Your task to perform on an android device: turn off notifications in google photos Image 0: 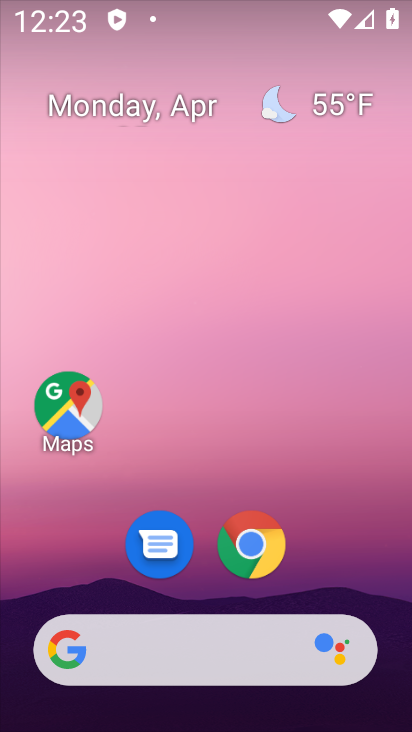
Step 0: drag from (284, 438) to (122, 54)
Your task to perform on an android device: turn off notifications in google photos Image 1: 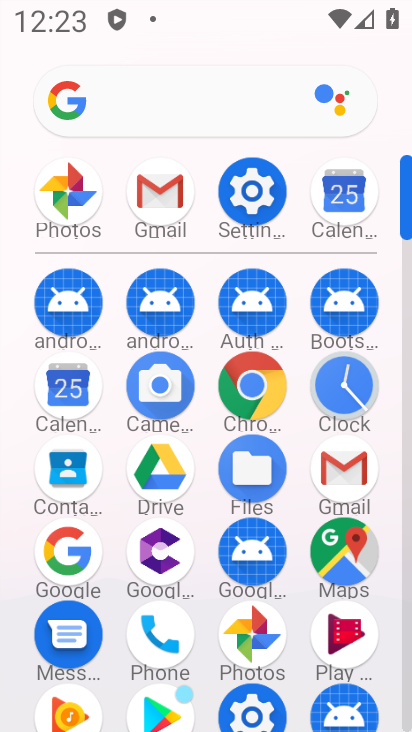
Step 1: click (249, 634)
Your task to perform on an android device: turn off notifications in google photos Image 2: 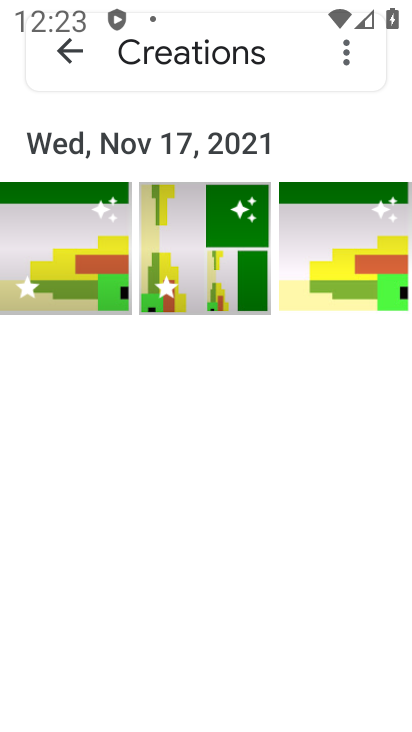
Step 2: press back button
Your task to perform on an android device: turn off notifications in google photos Image 3: 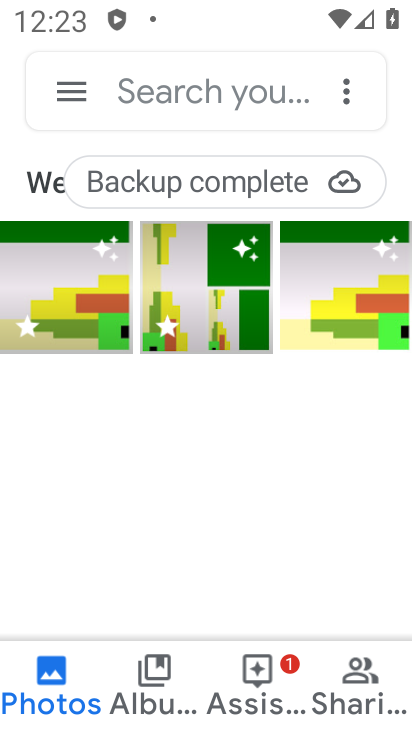
Step 3: click (74, 87)
Your task to perform on an android device: turn off notifications in google photos Image 4: 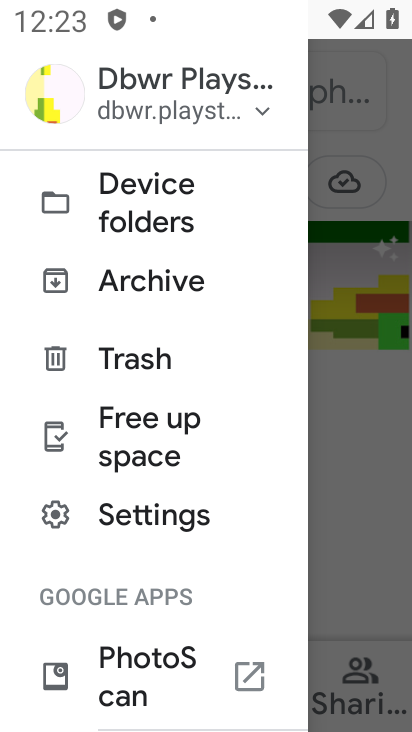
Step 4: click (153, 513)
Your task to perform on an android device: turn off notifications in google photos Image 5: 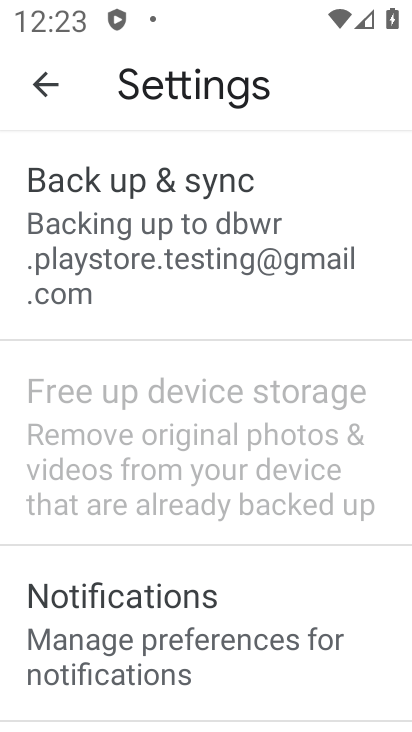
Step 5: click (153, 662)
Your task to perform on an android device: turn off notifications in google photos Image 6: 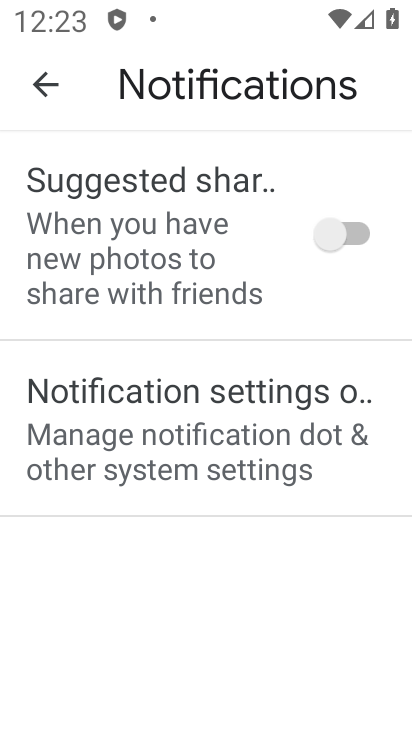
Step 6: click (189, 450)
Your task to perform on an android device: turn off notifications in google photos Image 7: 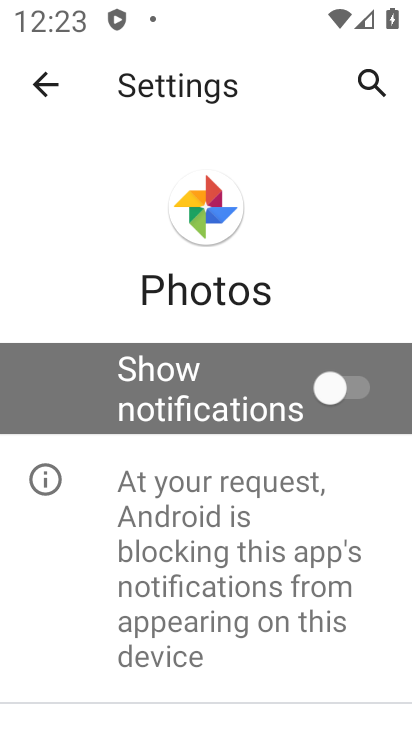
Step 7: task complete